Your task to perform on an android device: Open the Play Movies app and select the watchlist tab. Image 0: 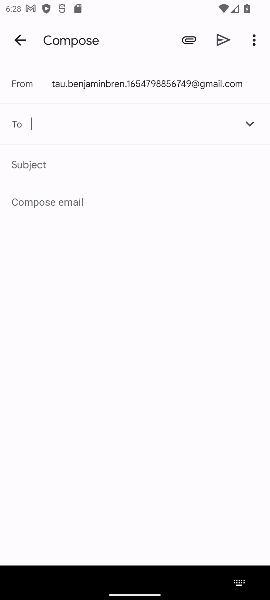
Step 0: press home button
Your task to perform on an android device: Open the Play Movies app and select the watchlist tab. Image 1: 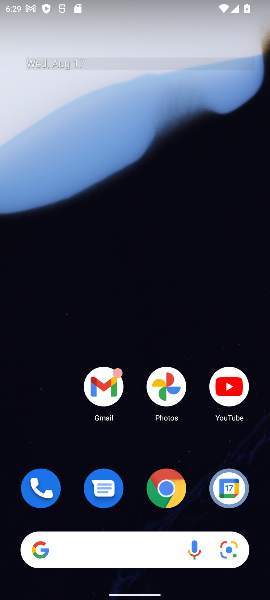
Step 1: task complete